Your task to perform on an android device: add a label to a message in the gmail app Image 0: 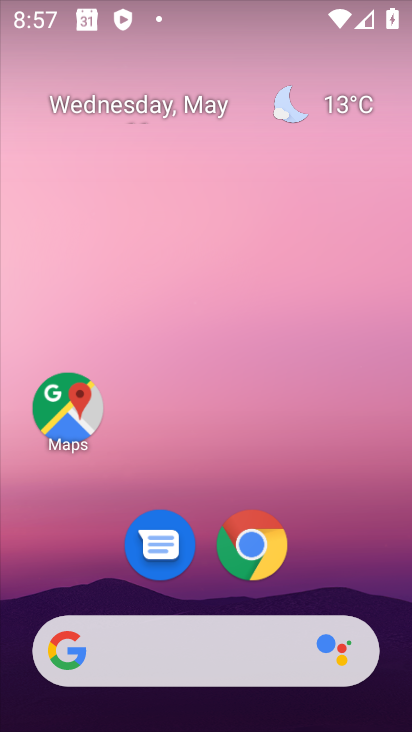
Step 0: drag from (349, 529) to (243, 43)
Your task to perform on an android device: add a label to a message in the gmail app Image 1: 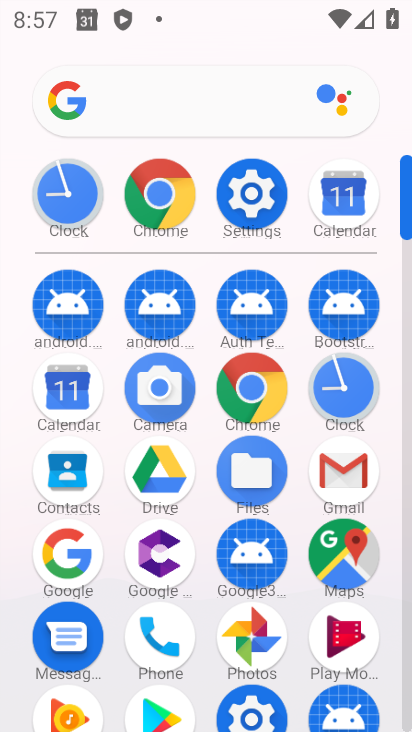
Step 1: drag from (0, 593) to (16, 248)
Your task to perform on an android device: add a label to a message in the gmail app Image 2: 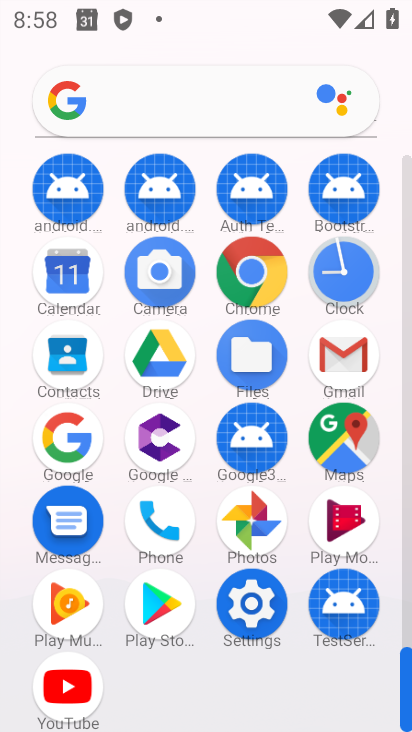
Step 2: click (338, 349)
Your task to perform on an android device: add a label to a message in the gmail app Image 3: 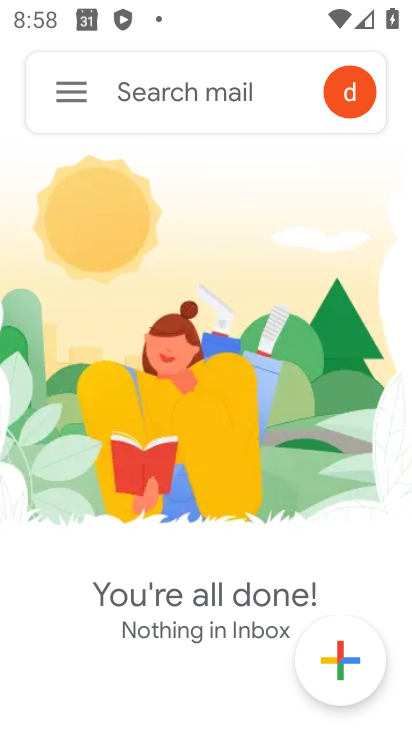
Step 3: click (76, 88)
Your task to perform on an android device: add a label to a message in the gmail app Image 4: 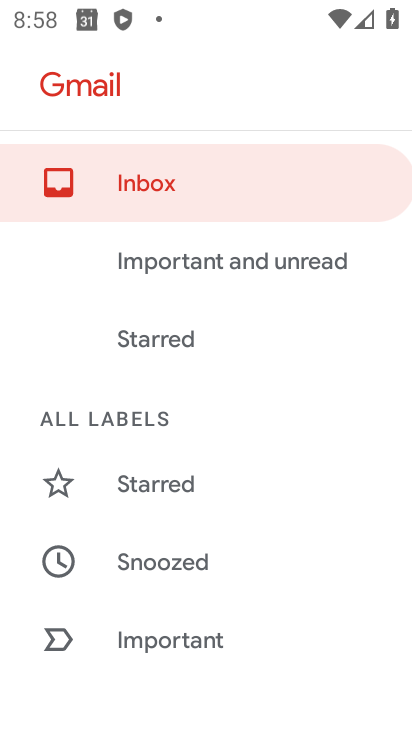
Step 4: drag from (228, 554) to (223, 151)
Your task to perform on an android device: add a label to a message in the gmail app Image 5: 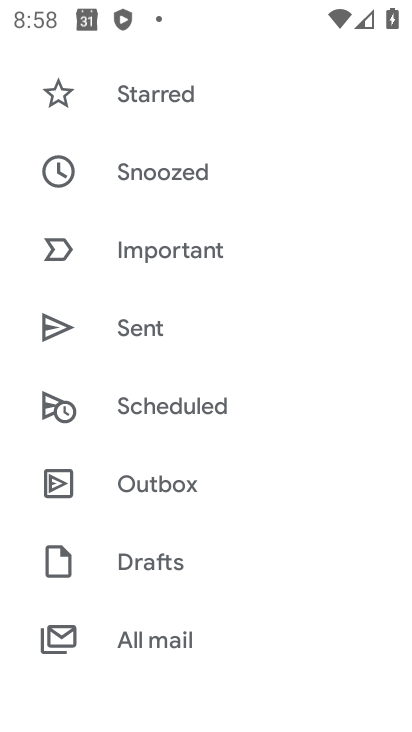
Step 5: click (178, 644)
Your task to perform on an android device: add a label to a message in the gmail app Image 6: 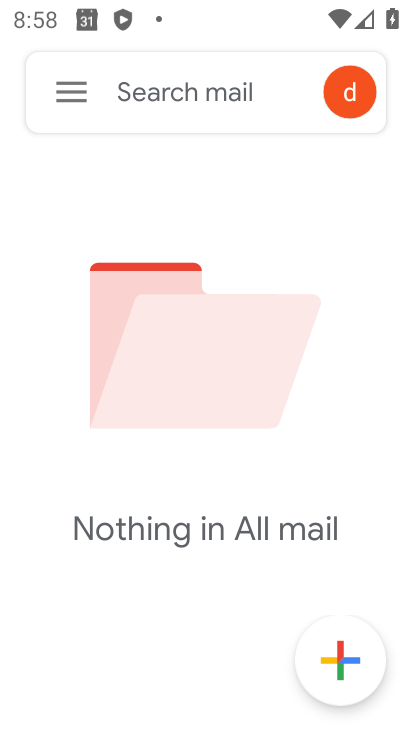
Step 6: task complete